Your task to perform on an android device: When is my next meeting? Image 0: 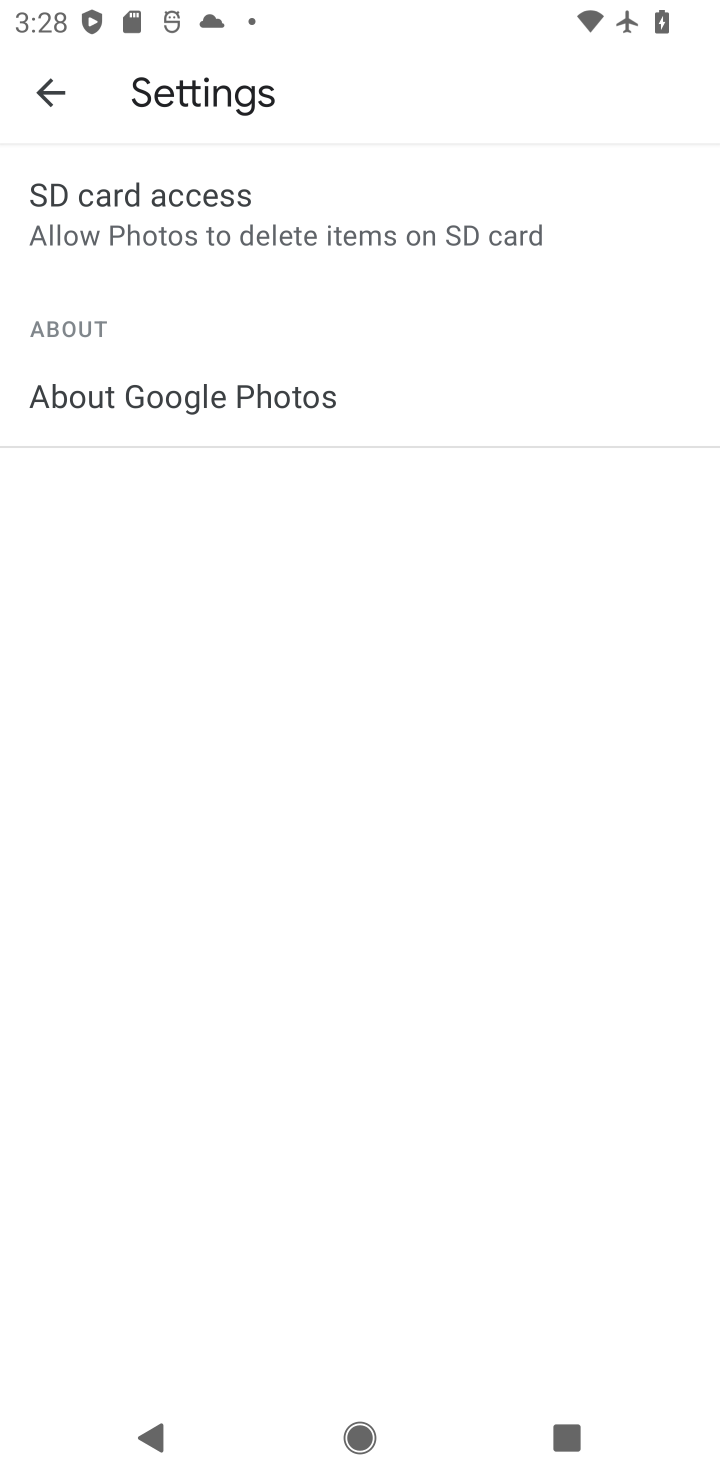
Step 0: press home button
Your task to perform on an android device: When is my next meeting? Image 1: 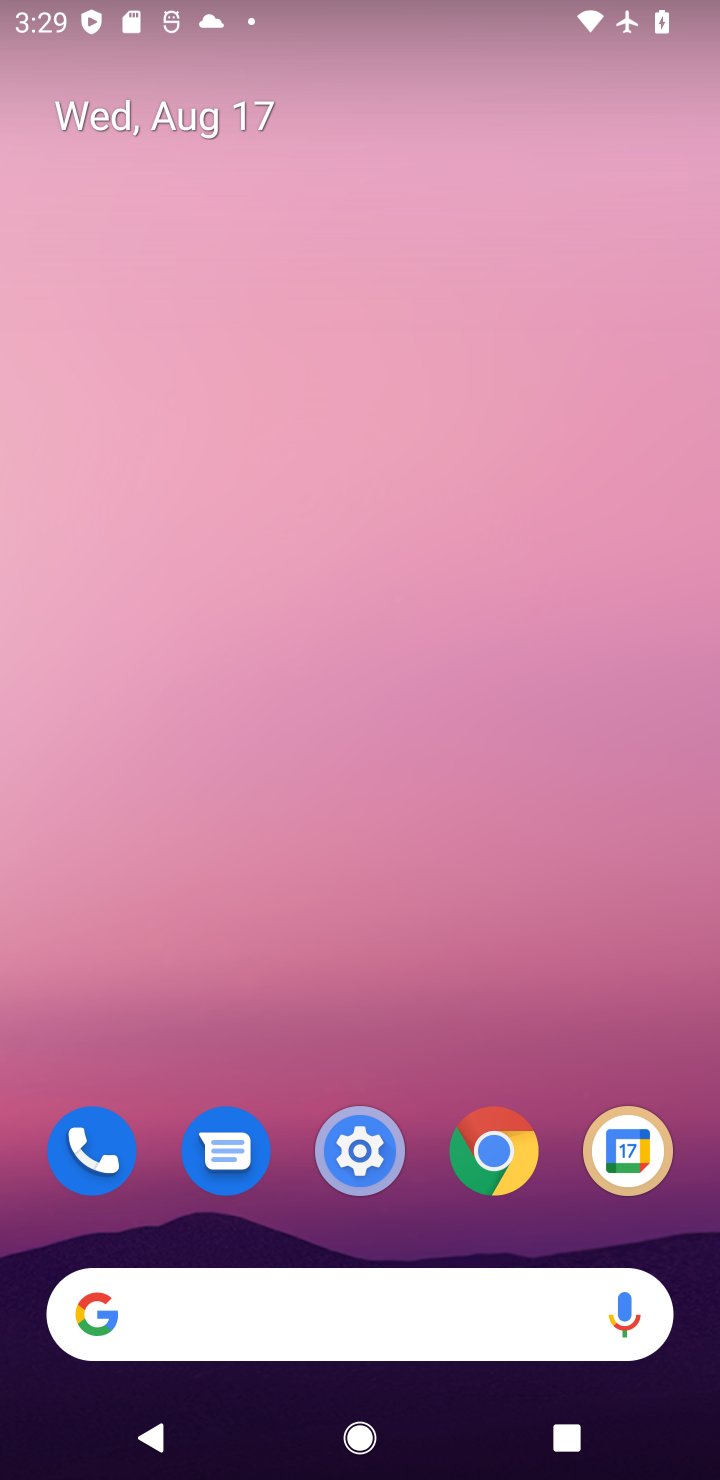
Step 1: drag from (434, 1327) to (415, 270)
Your task to perform on an android device: When is my next meeting? Image 2: 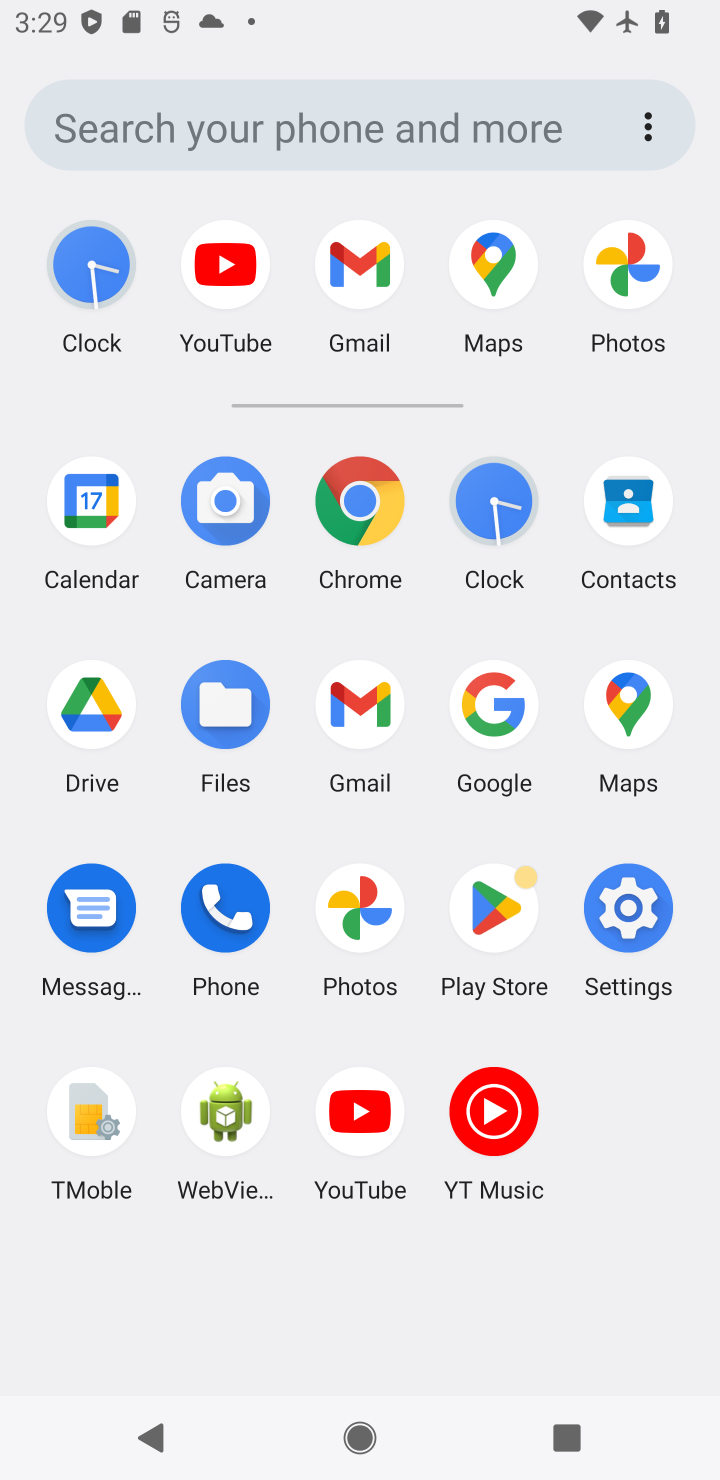
Step 2: click (93, 495)
Your task to perform on an android device: When is my next meeting? Image 3: 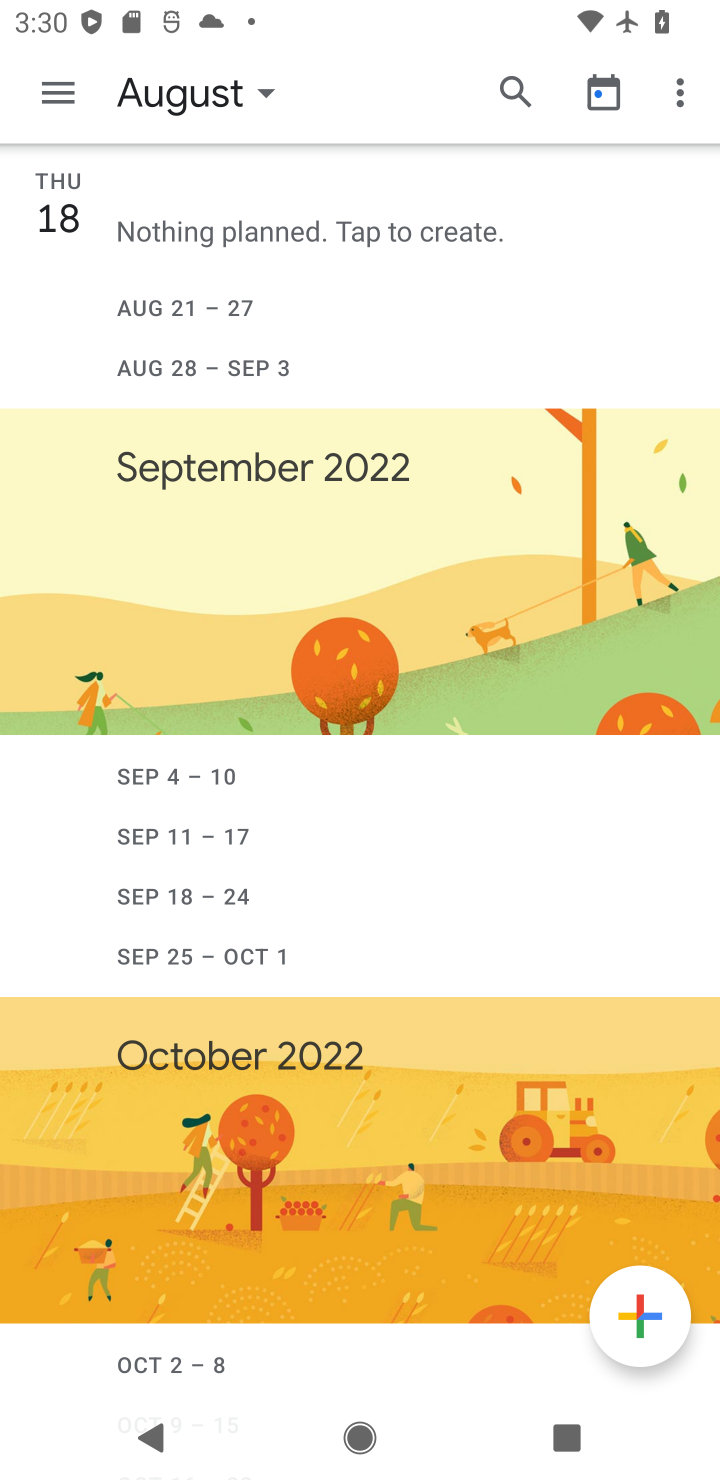
Step 3: task complete